Your task to perform on an android device: star an email in the gmail app Image 0: 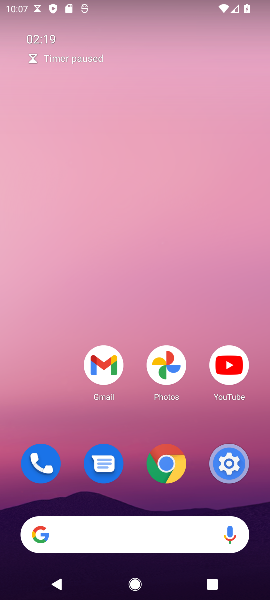
Step 0: click (102, 356)
Your task to perform on an android device: star an email in the gmail app Image 1: 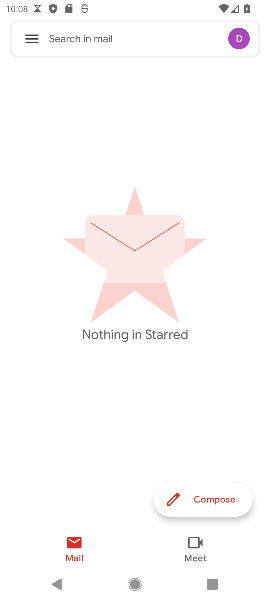
Step 1: click (30, 42)
Your task to perform on an android device: star an email in the gmail app Image 2: 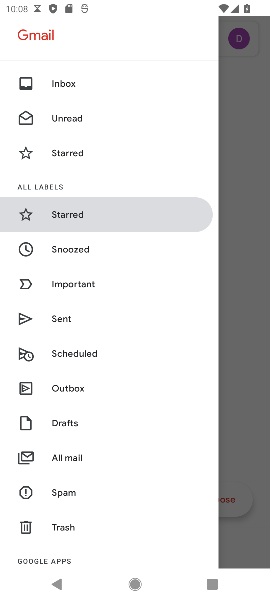
Step 2: click (85, 222)
Your task to perform on an android device: star an email in the gmail app Image 3: 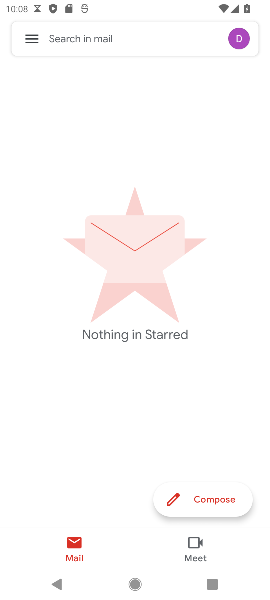
Step 3: task complete